Your task to perform on an android device: turn on airplane mode Image 0: 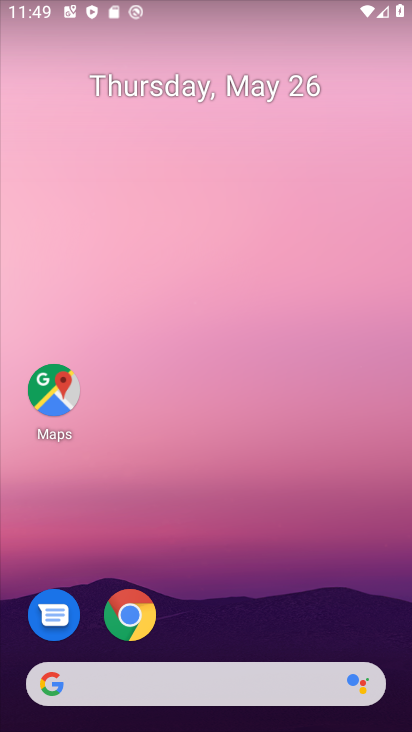
Step 0: drag from (186, 644) to (264, 216)
Your task to perform on an android device: turn on airplane mode Image 1: 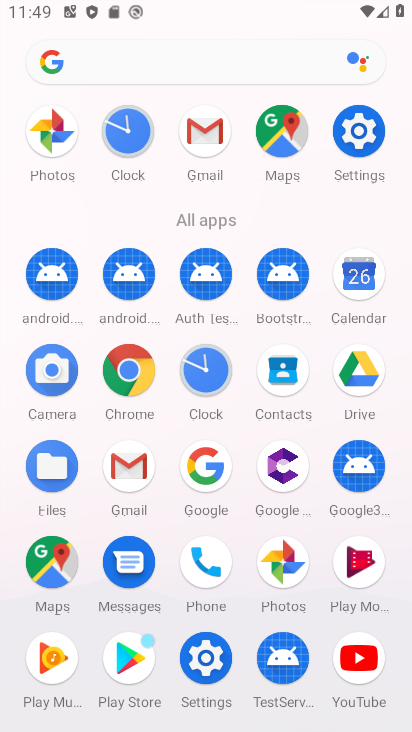
Step 1: click (202, 662)
Your task to perform on an android device: turn on airplane mode Image 2: 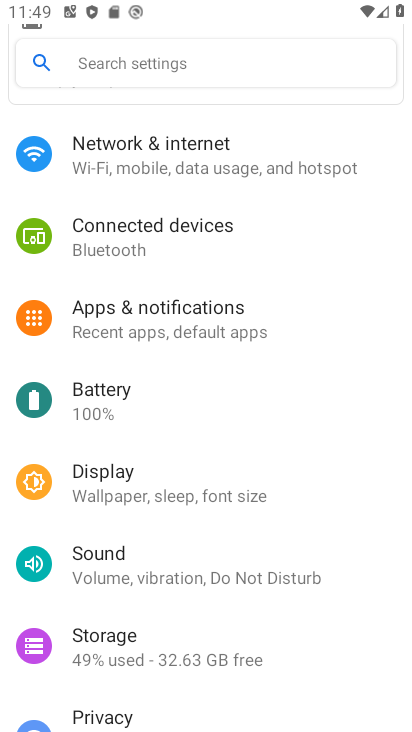
Step 2: click (195, 162)
Your task to perform on an android device: turn on airplane mode Image 3: 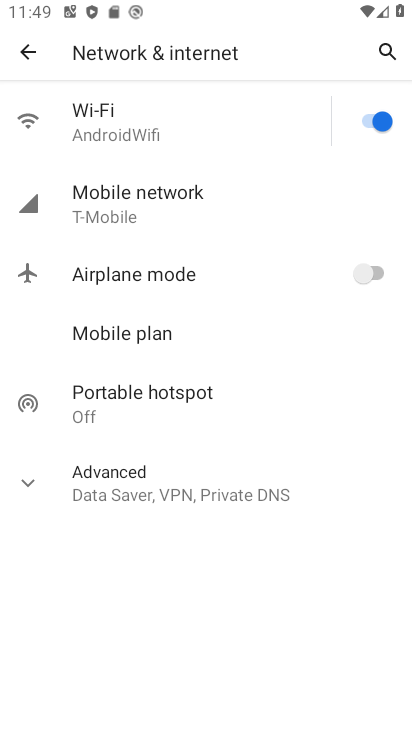
Step 3: click (396, 273)
Your task to perform on an android device: turn on airplane mode Image 4: 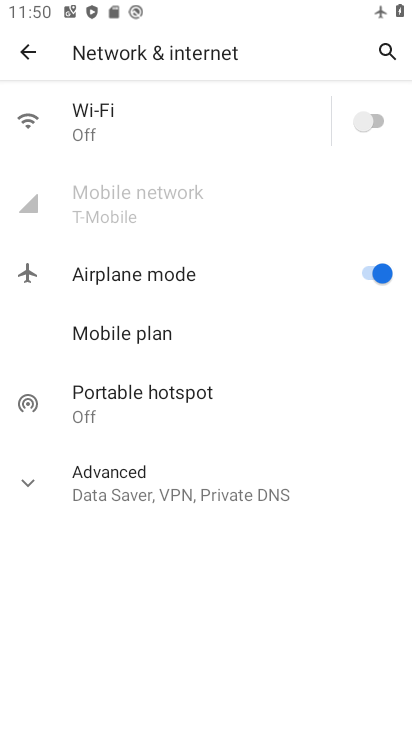
Step 4: task complete